Your task to perform on an android device: toggle sleep mode Image 0: 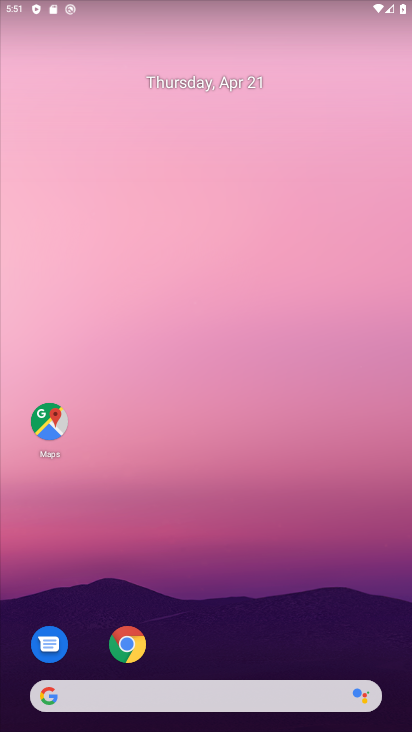
Step 0: drag from (355, 650) to (250, 86)
Your task to perform on an android device: toggle sleep mode Image 1: 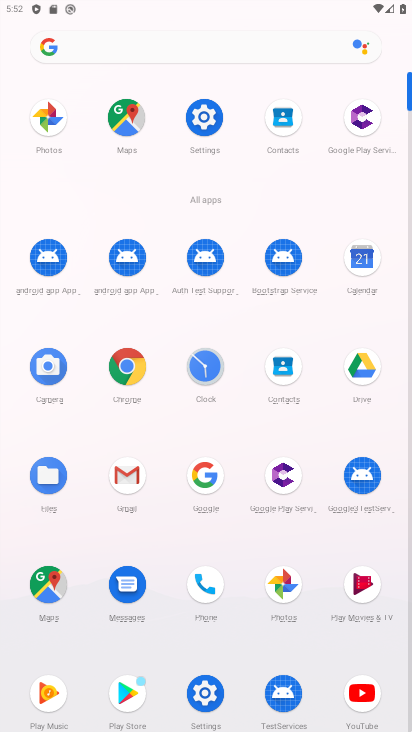
Step 1: click (195, 111)
Your task to perform on an android device: toggle sleep mode Image 2: 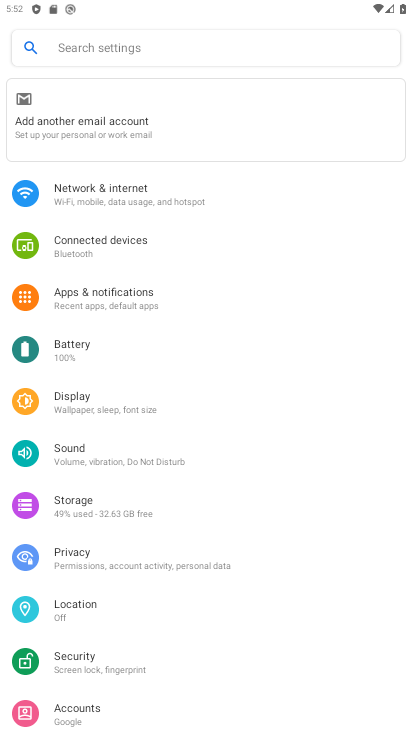
Step 2: click (106, 403)
Your task to perform on an android device: toggle sleep mode Image 3: 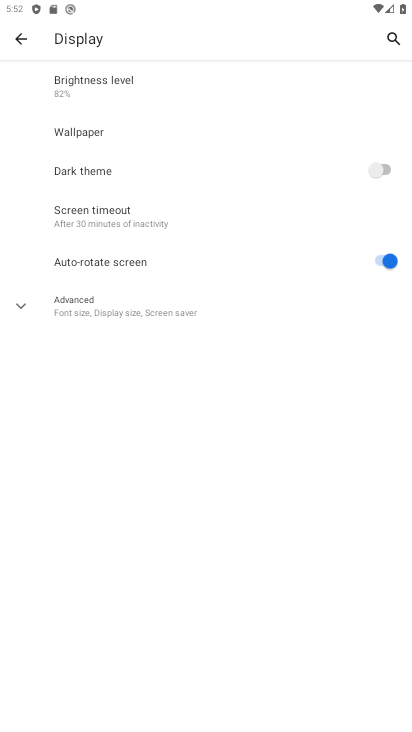
Step 3: task complete